Your task to perform on an android device: toggle javascript in the chrome app Image 0: 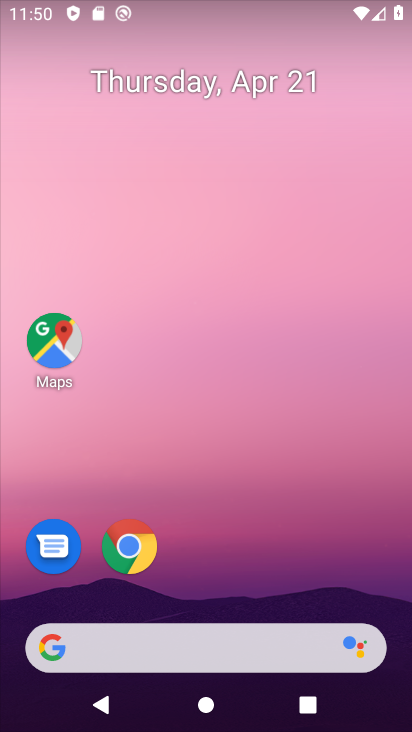
Step 0: click (128, 545)
Your task to perform on an android device: toggle javascript in the chrome app Image 1: 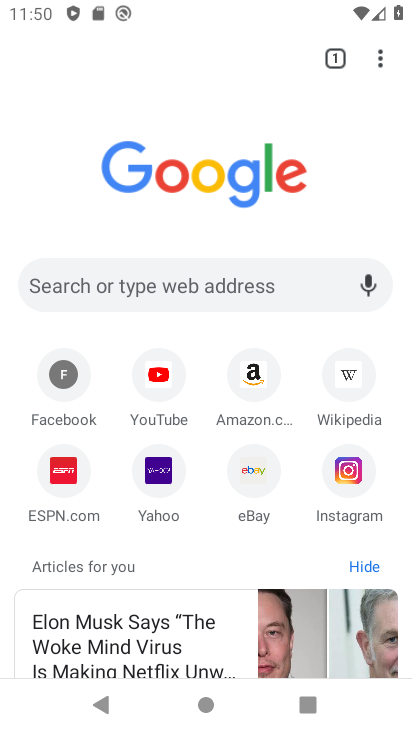
Step 1: drag from (380, 60) to (221, 500)
Your task to perform on an android device: toggle javascript in the chrome app Image 2: 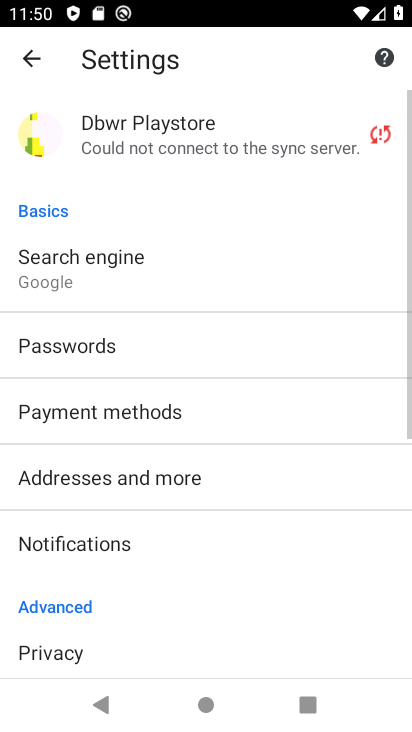
Step 2: drag from (195, 619) to (207, 254)
Your task to perform on an android device: toggle javascript in the chrome app Image 3: 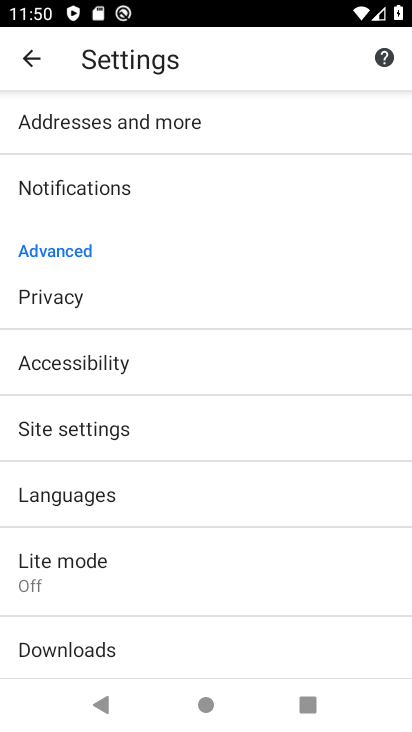
Step 3: click (90, 425)
Your task to perform on an android device: toggle javascript in the chrome app Image 4: 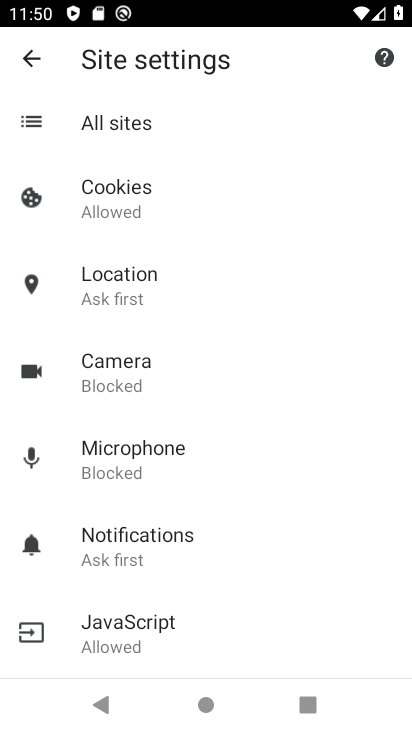
Step 4: click (136, 619)
Your task to perform on an android device: toggle javascript in the chrome app Image 5: 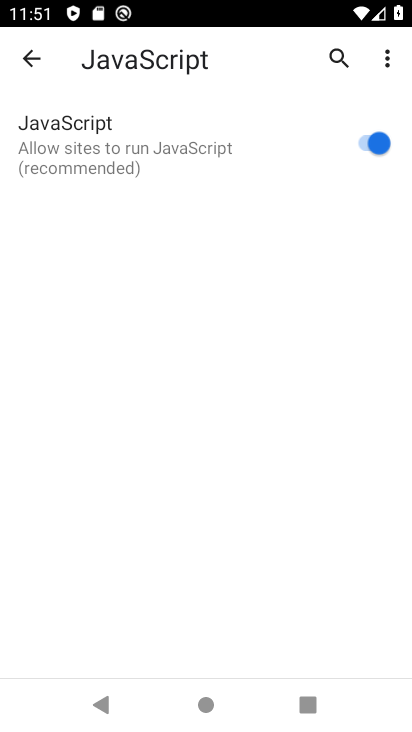
Step 5: click (365, 144)
Your task to perform on an android device: toggle javascript in the chrome app Image 6: 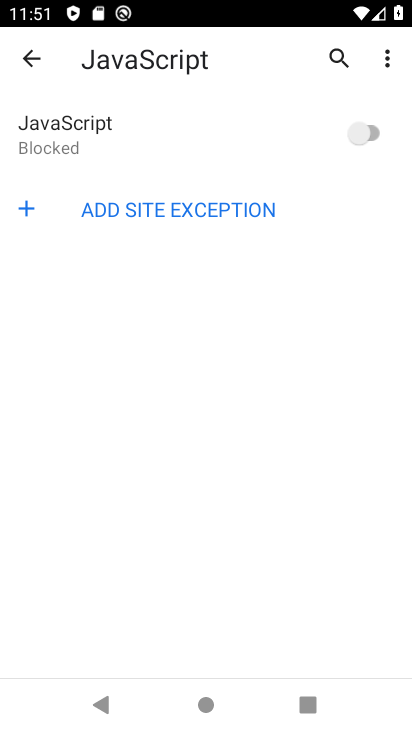
Step 6: task complete